Your task to perform on an android device: Open Reddit.com Image 0: 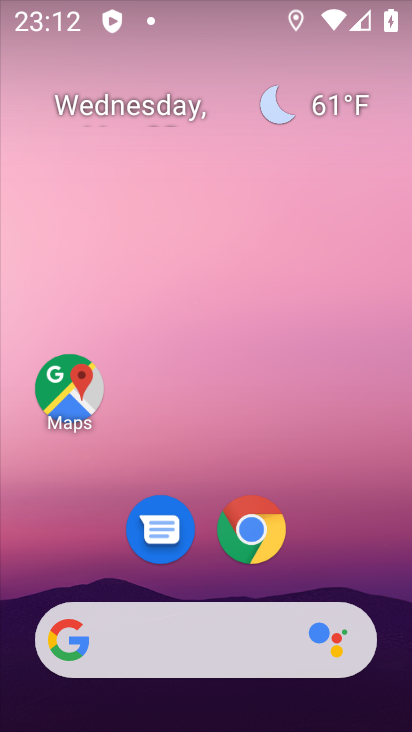
Step 0: drag from (389, 584) to (372, 268)
Your task to perform on an android device: Open Reddit.com Image 1: 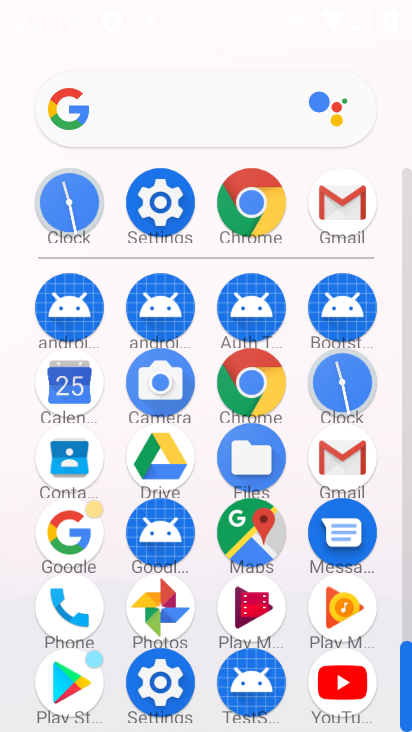
Step 1: click (248, 392)
Your task to perform on an android device: Open Reddit.com Image 2: 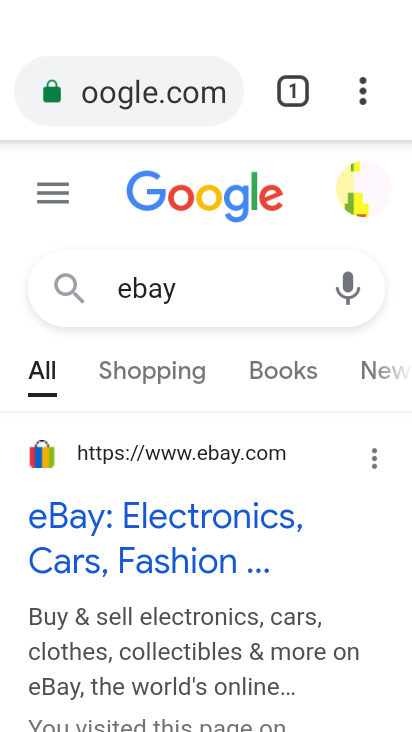
Step 2: click (206, 109)
Your task to perform on an android device: Open Reddit.com Image 3: 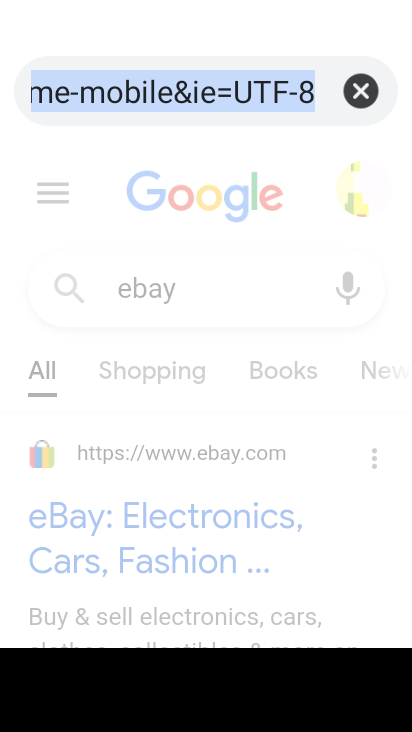
Step 3: click (352, 108)
Your task to perform on an android device: Open Reddit.com Image 4: 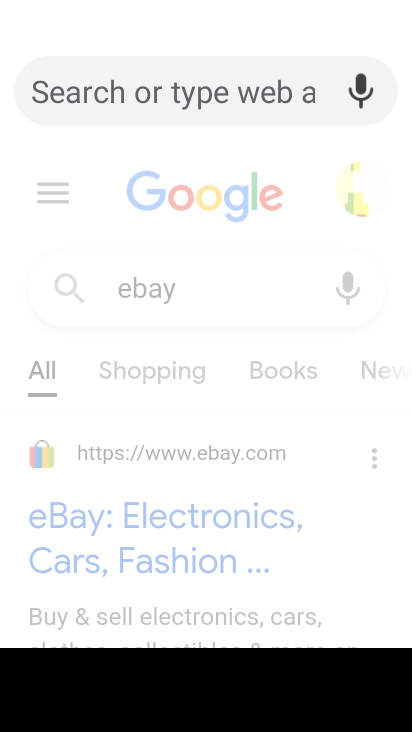
Step 4: type "reddit.com"
Your task to perform on an android device: Open Reddit.com Image 5: 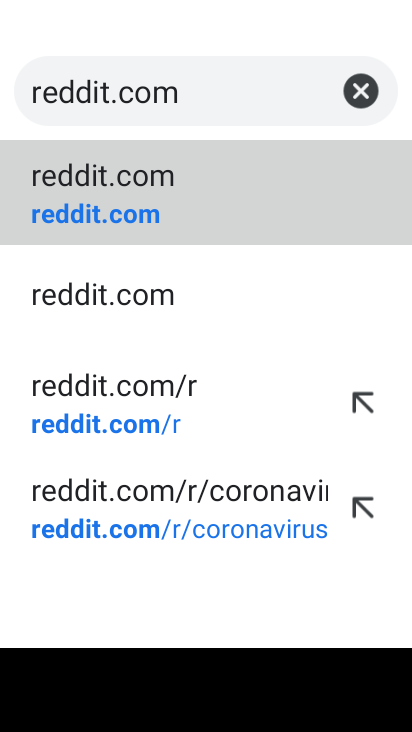
Step 5: click (171, 216)
Your task to perform on an android device: Open Reddit.com Image 6: 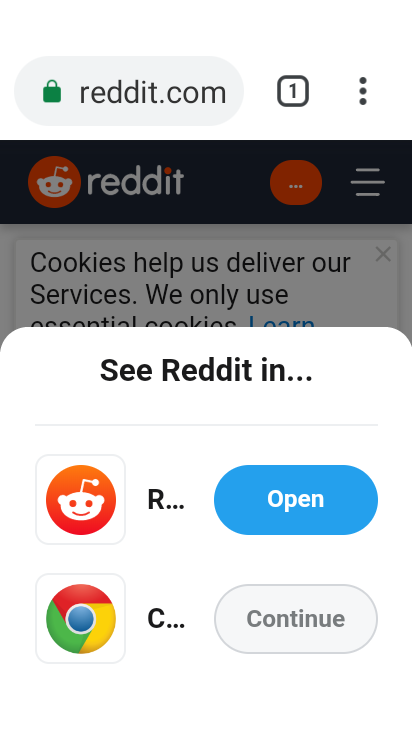
Step 6: task complete